Your task to perform on an android device: find photos in the google photos app Image 0: 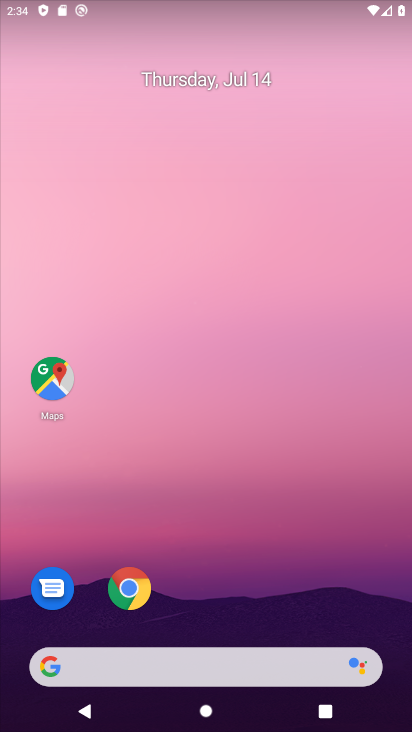
Step 0: drag from (212, 642) to (230, 196)
Your task to perform on an android device: find photos in the google photos app Image 1: 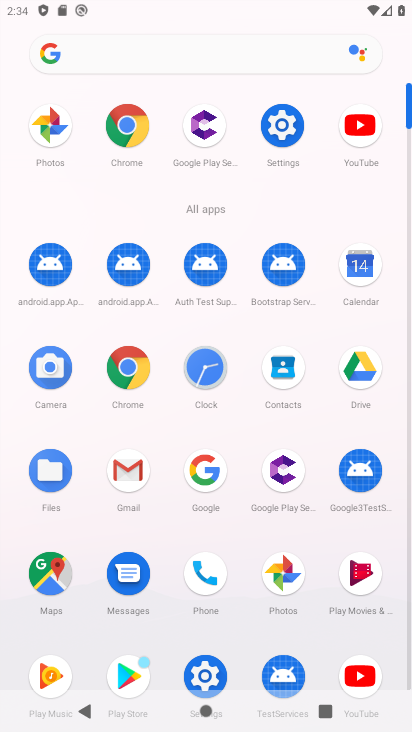
Step 1: drag from (215, 526) to (205, 211)
Your task to perform on an android device: find photos in the google photos app Image 2: 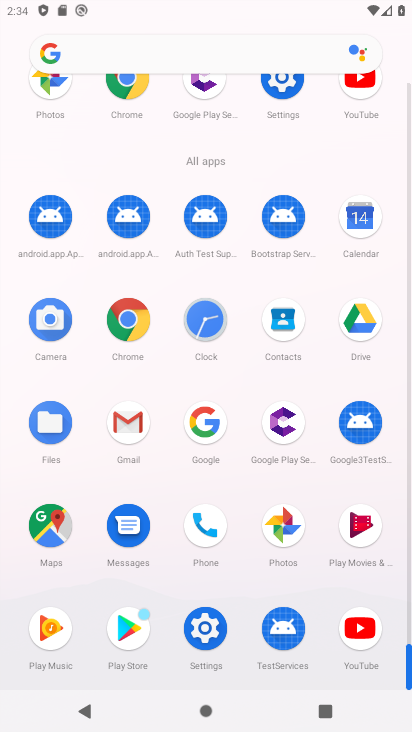
Step 2: click (273, 521)
Your task to perform on an android device: find photos in the google photos app Image 3: 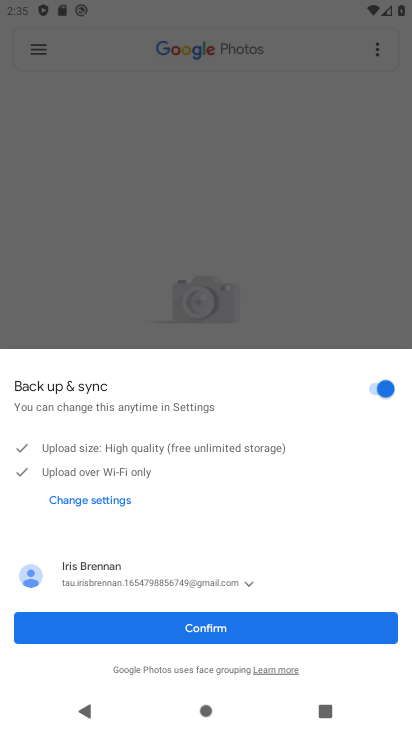
Step 3: click (190, 639)
Your task to perform on an android device: find photos in the google photos app Image 4: 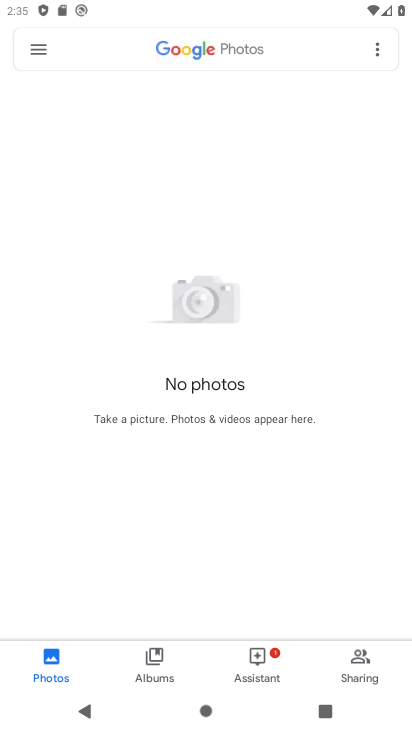
Step 4: click (39, 687)
Your task to perform on an android device: find photos in the google photos app Image 5: 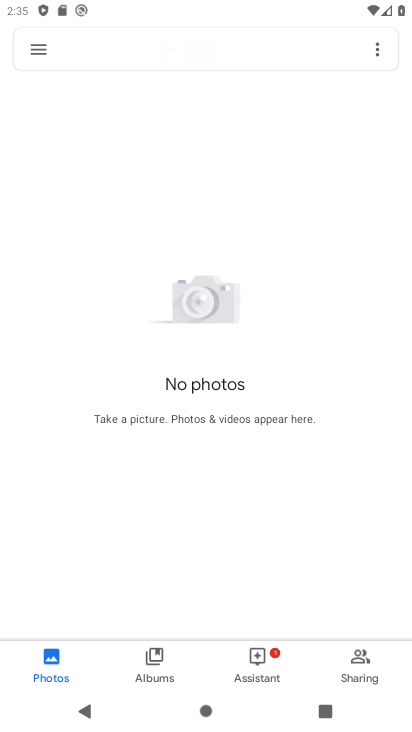
Step 5: task complete